Your task to perform on an android device: What's the news in Vietnam? Image 0: 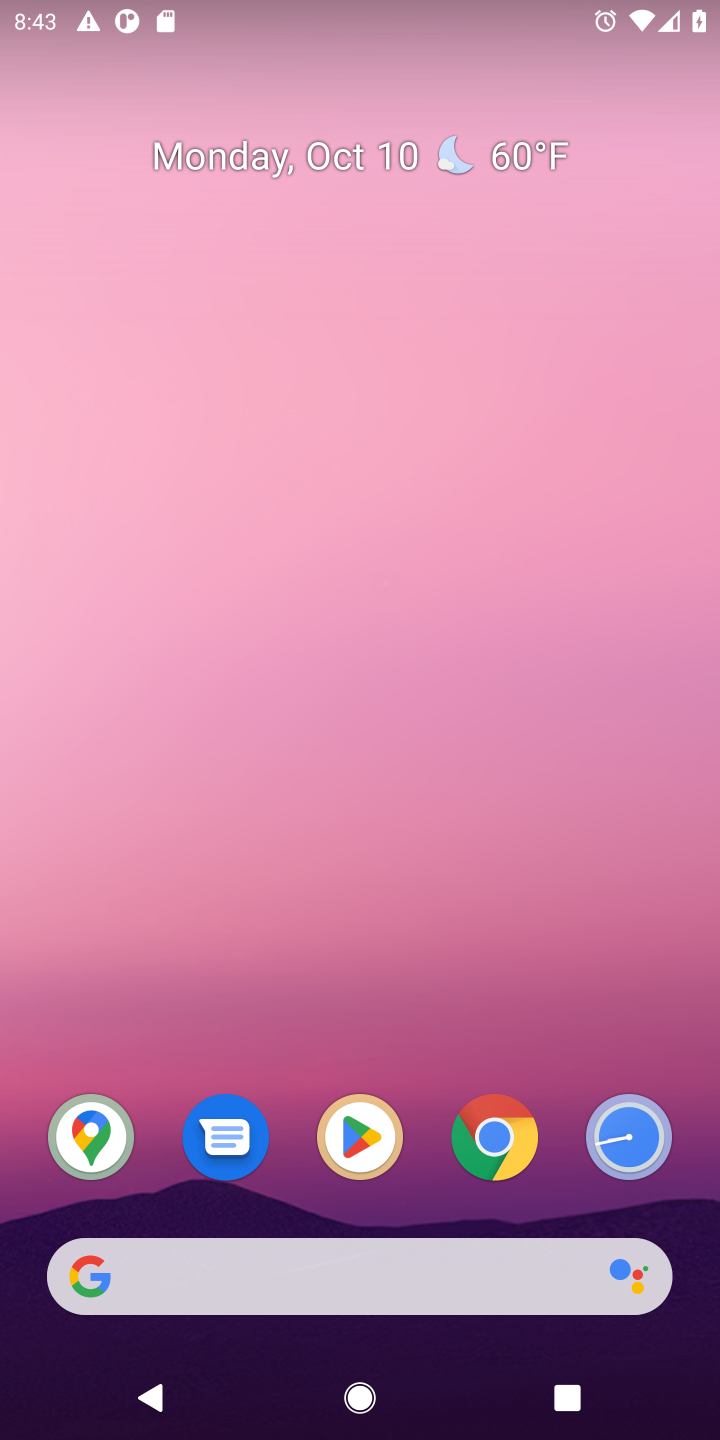
Step 0: click (500, 1136)
Your task to perform on an android device: What's the news in Vietnam? Image 1: 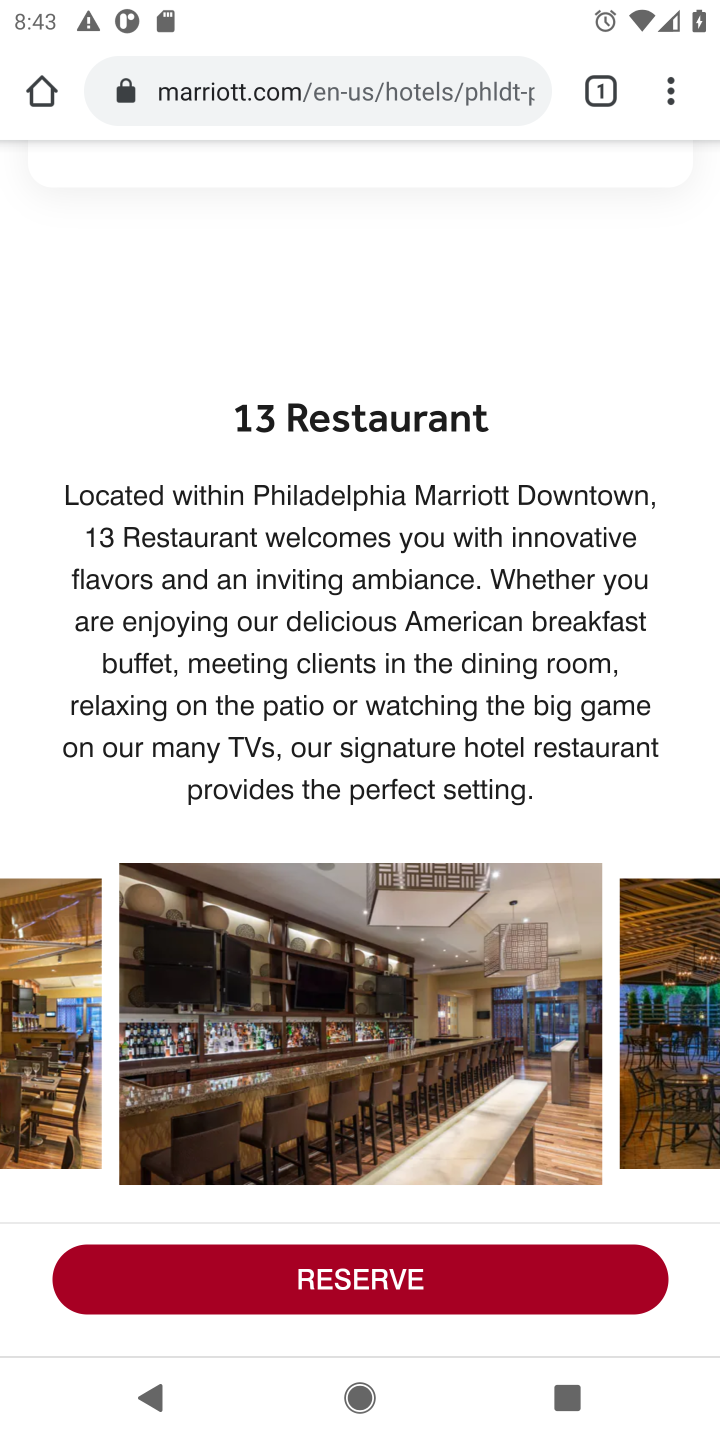
Step 1: click (306, 63)
Your task to perform on an android device: What's the news in Vietnam? Image 2: 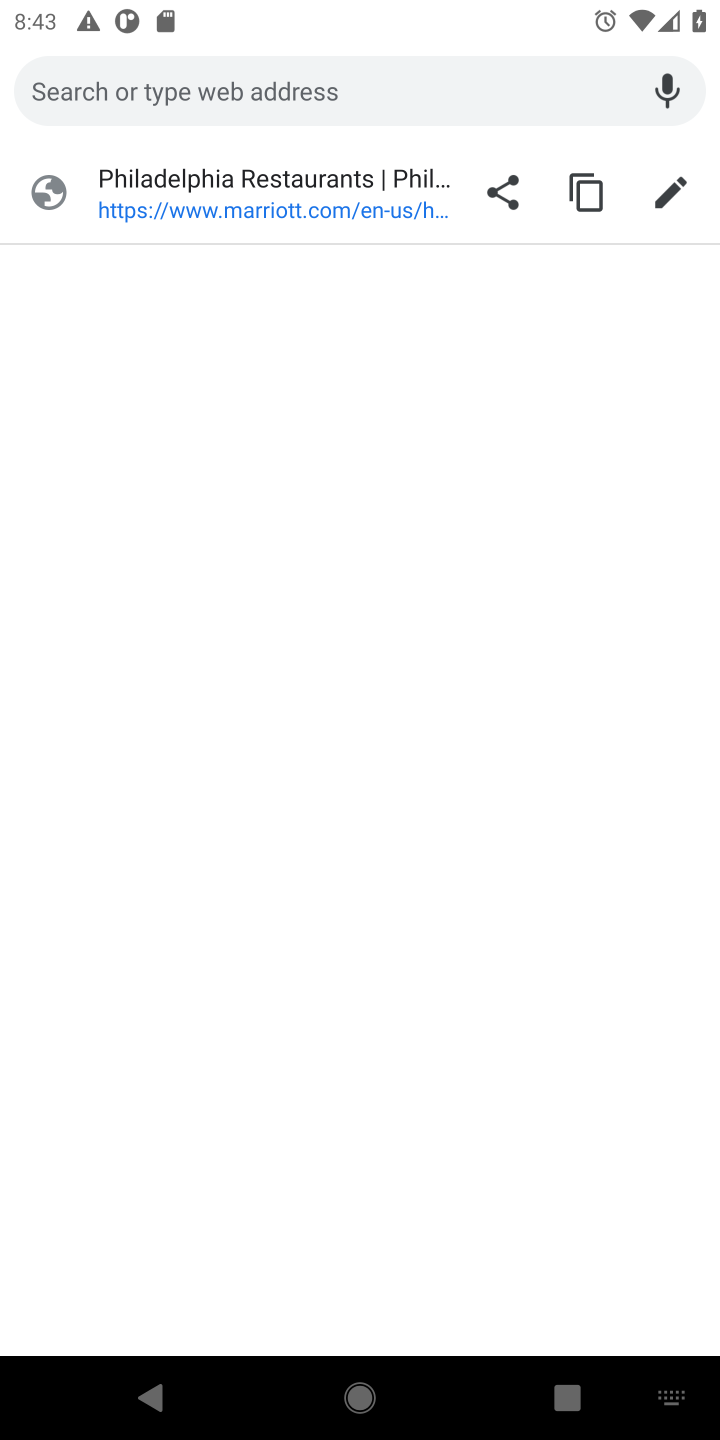
Step 2: type "news in vietnam?"
Your task to perform on an android device: What's the news in Vietnam? Image 3: 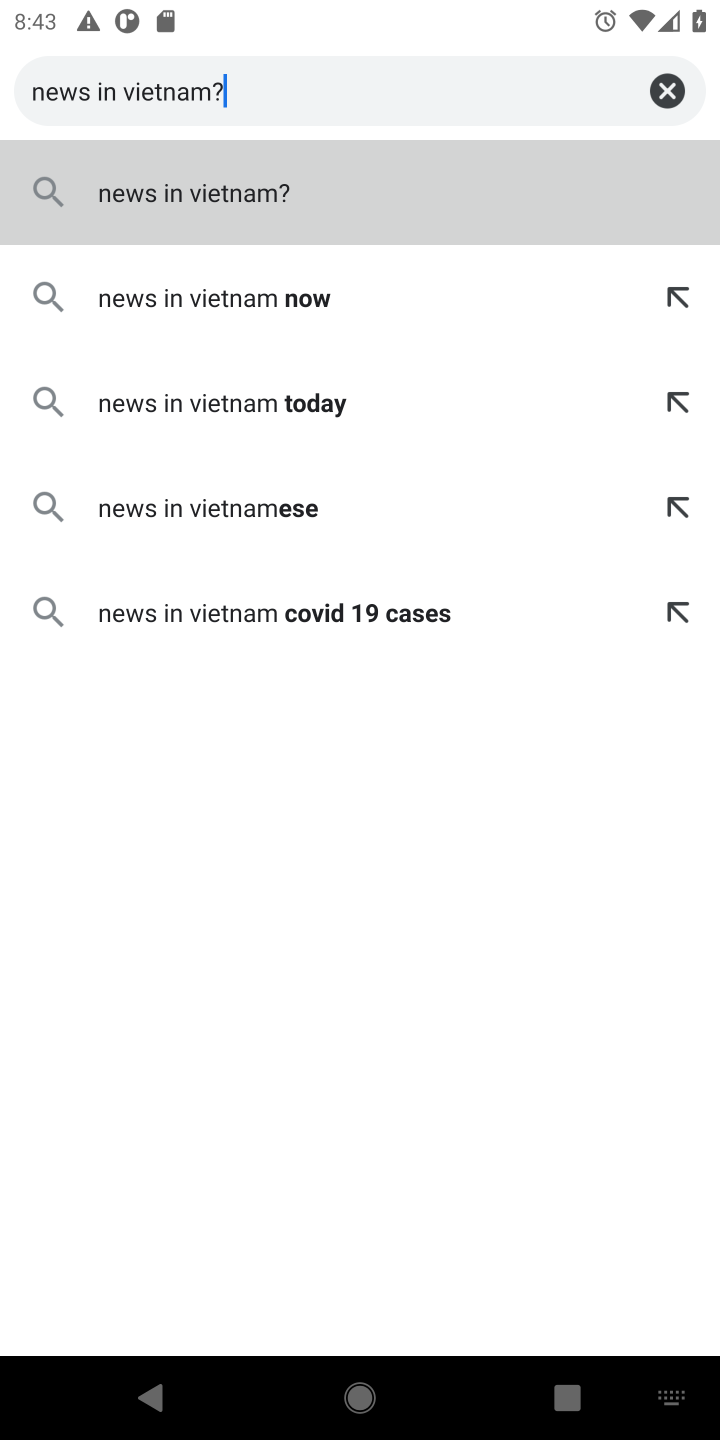
Step 3: click (152, 193)
Your task to perform on an android device: What's the news in Vietnam? Image 4: 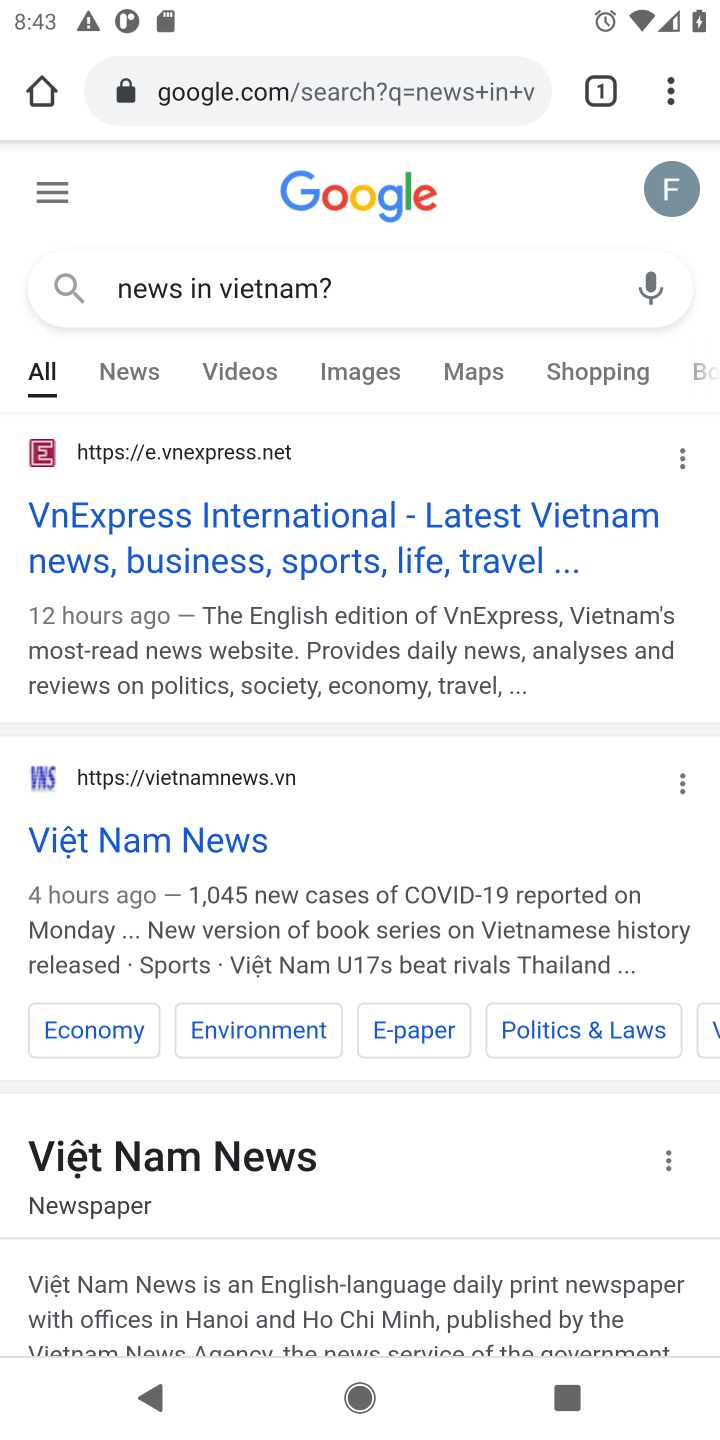
Step 4: click (182, 531)
Your task to perform on an android device: What's the news in Vietnam? Image 5: 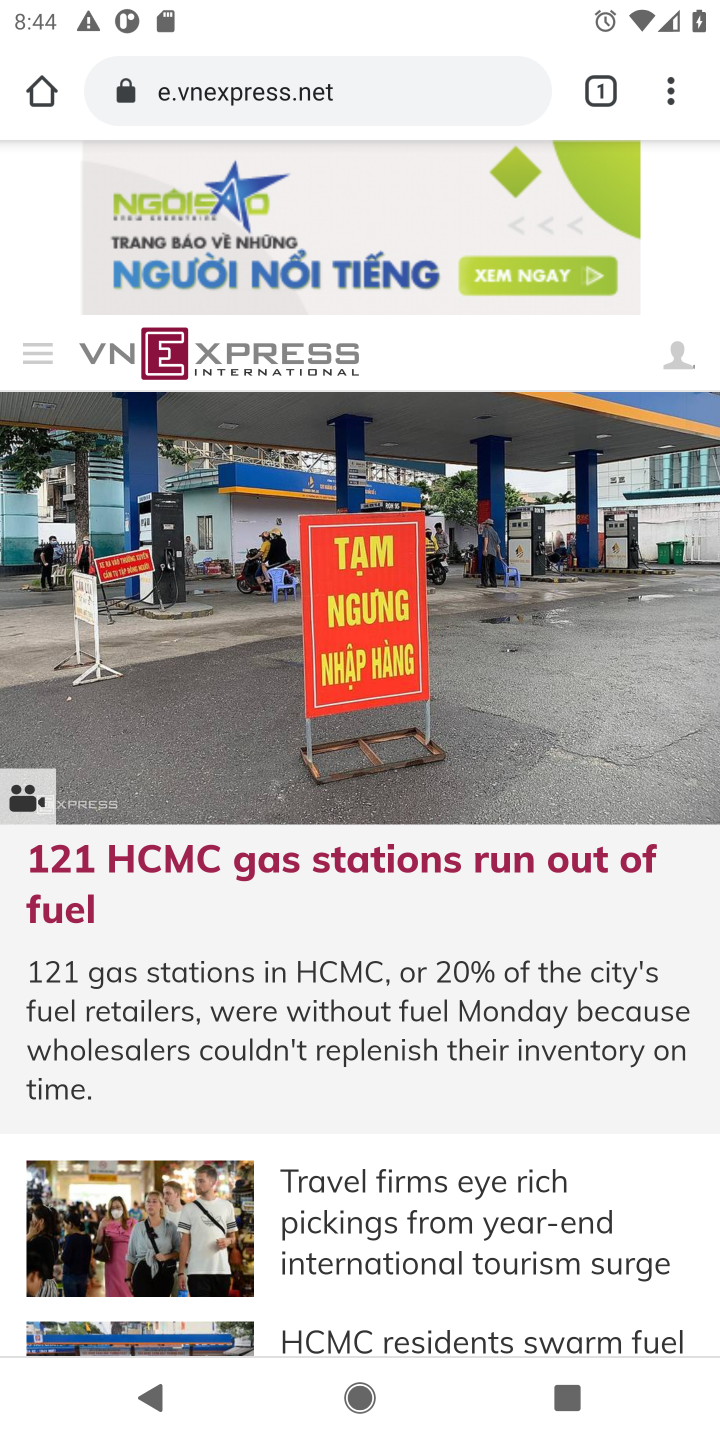
Step 5: drag from (412, 748) to (393, 201)
Your task to perform on an android device: What's the news in Vietnam? Image 6: 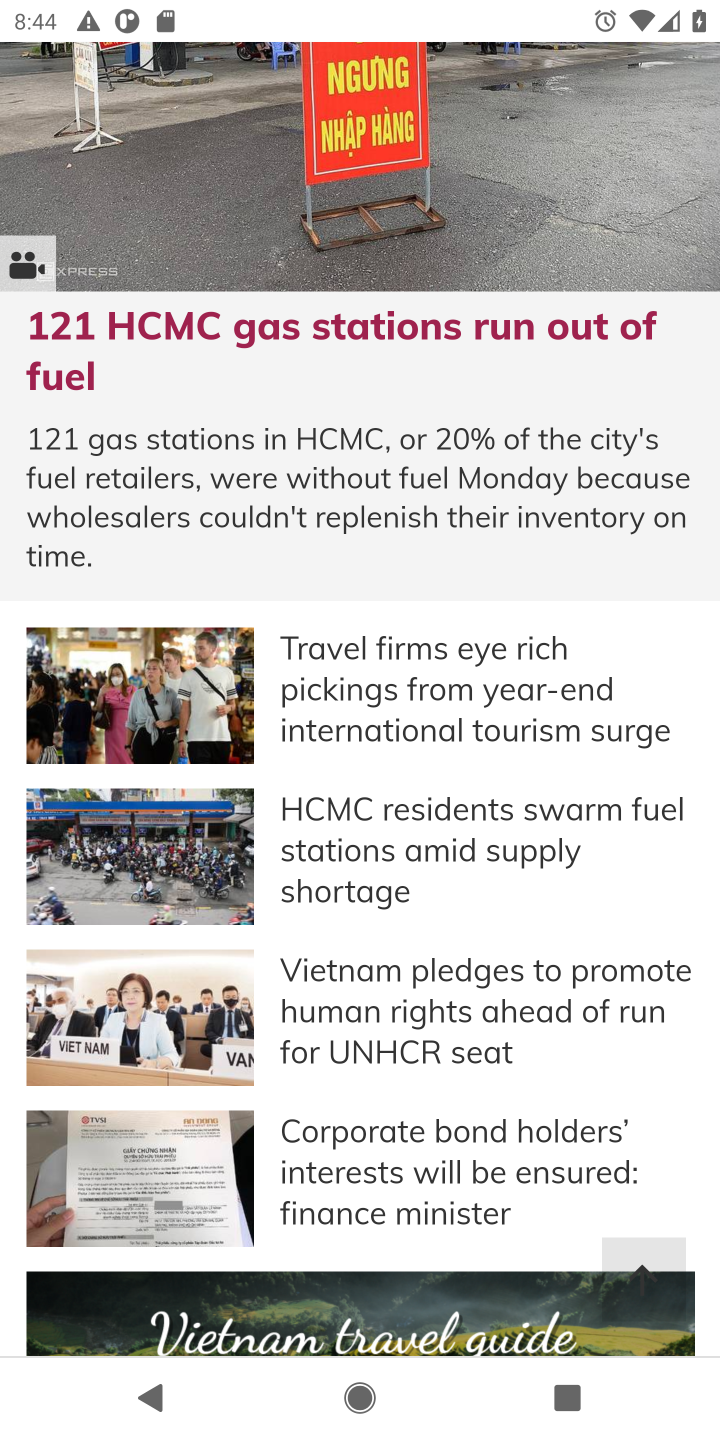
Step 6: drag from (452, 919) to (443, 545)
Your task to perform on an android device: What's the news in Vietnam? Image 7: 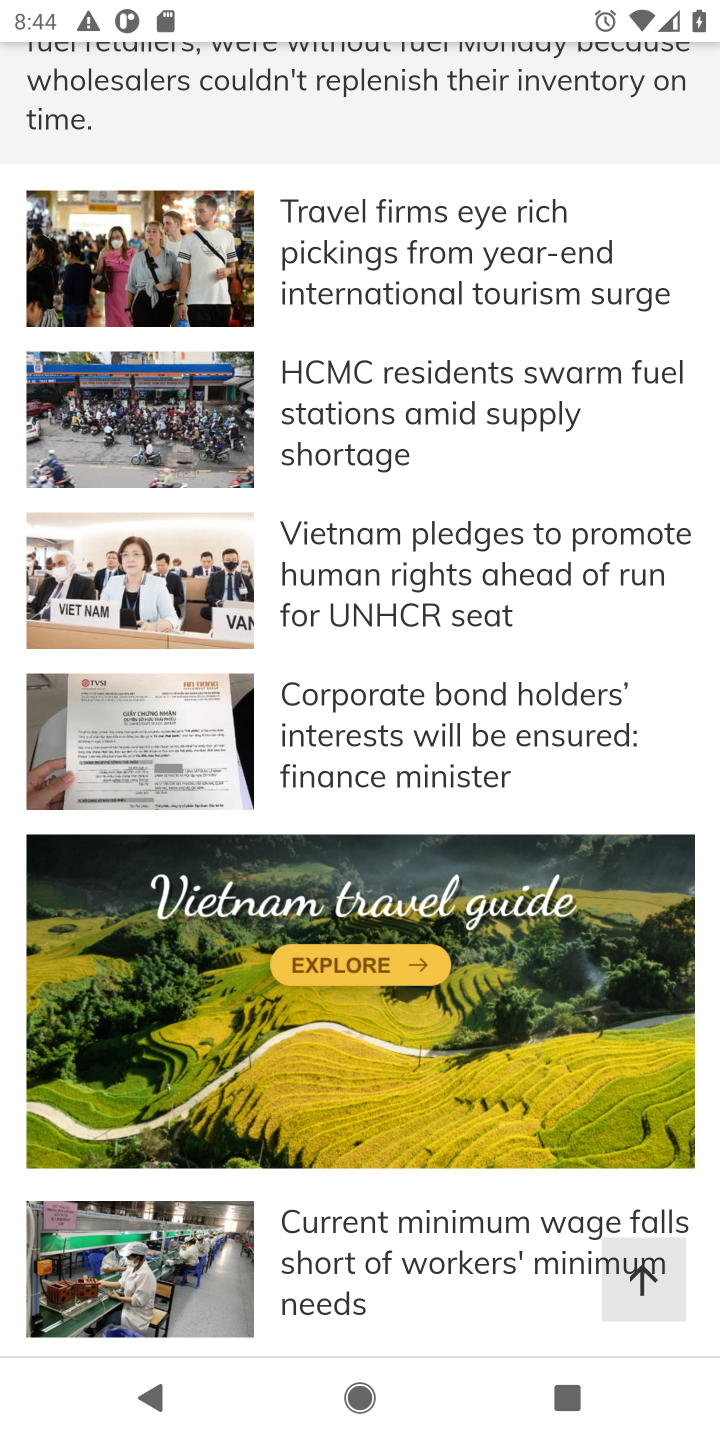
Step 7: drag from (405, 1003) to (411, 462)
Your task to perform on an android device: What's the news in Vietnam? Image 8: 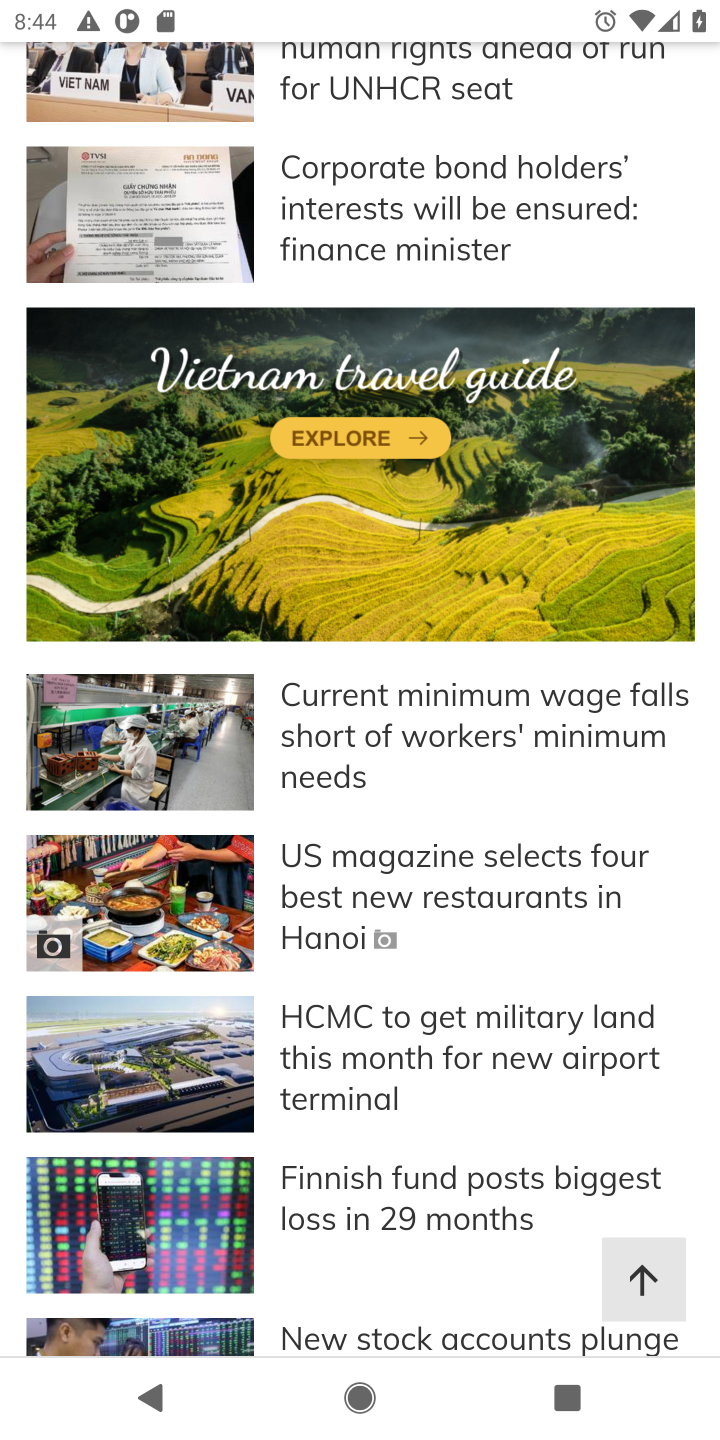
Step 8: drag from (469, 535) to (472, 258)
Your task to perform on an android device: What's the news in Vietnam? Image 9: 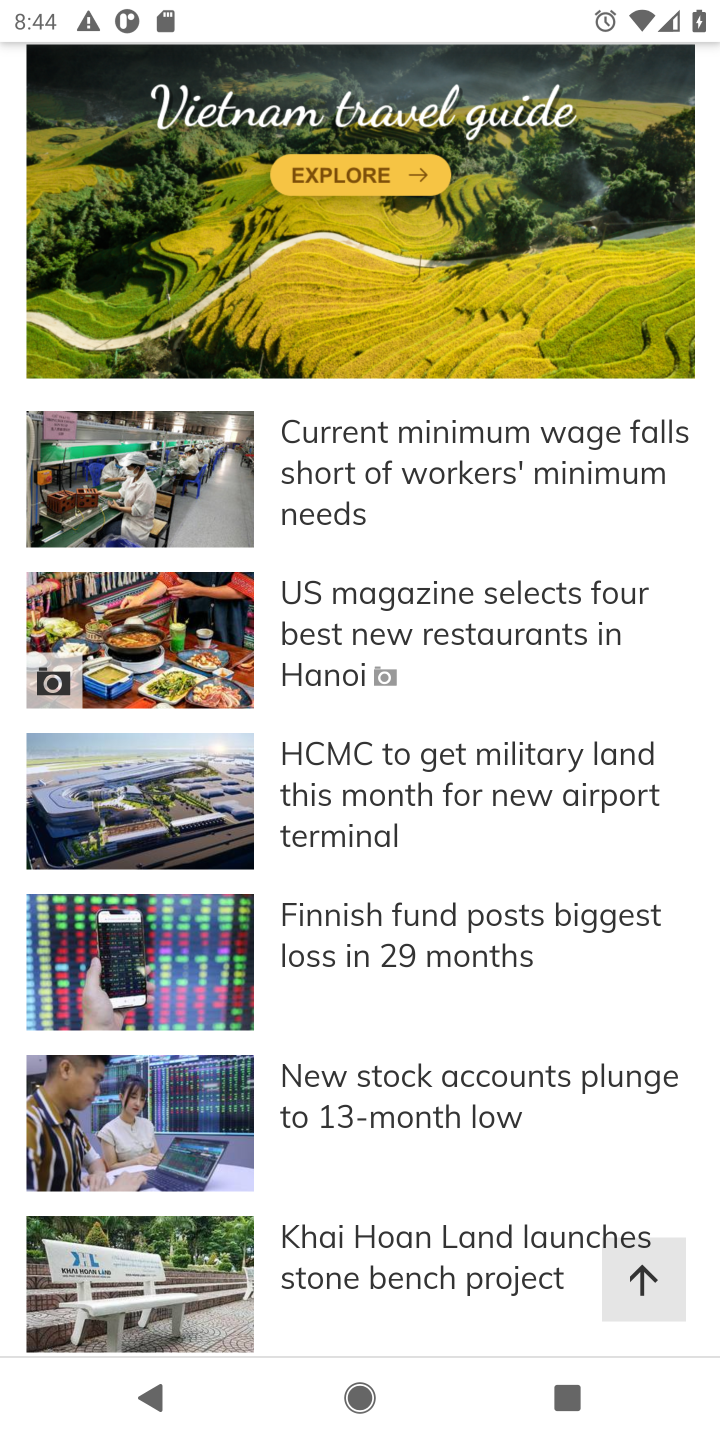
Step 9: drag from (511, 1181) to (466, 370)
Your task to perform on an android device: What's the news in Vietnam? Image 10: 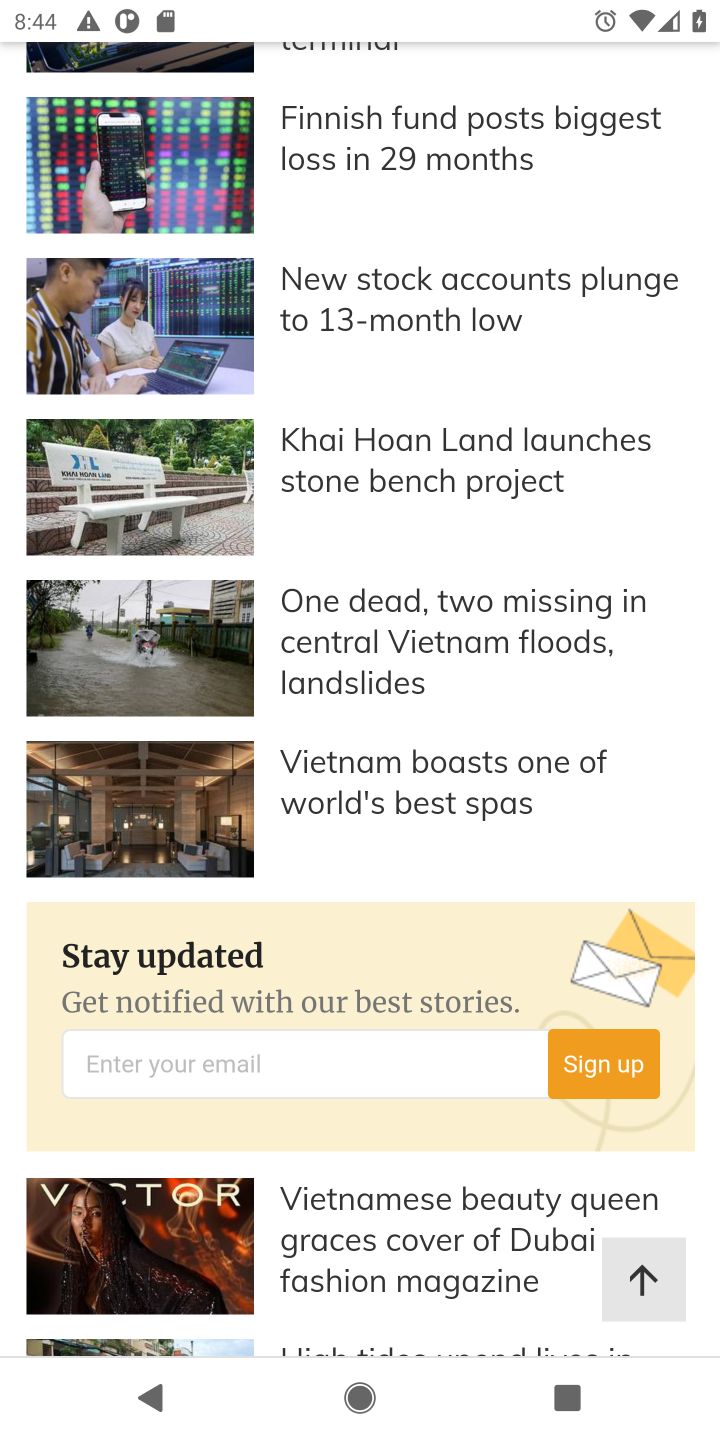
Step 10: drag from (470, 127) to (510, 864)
Your task to perform on an android device: What's the news in Vietnam? Image 11: 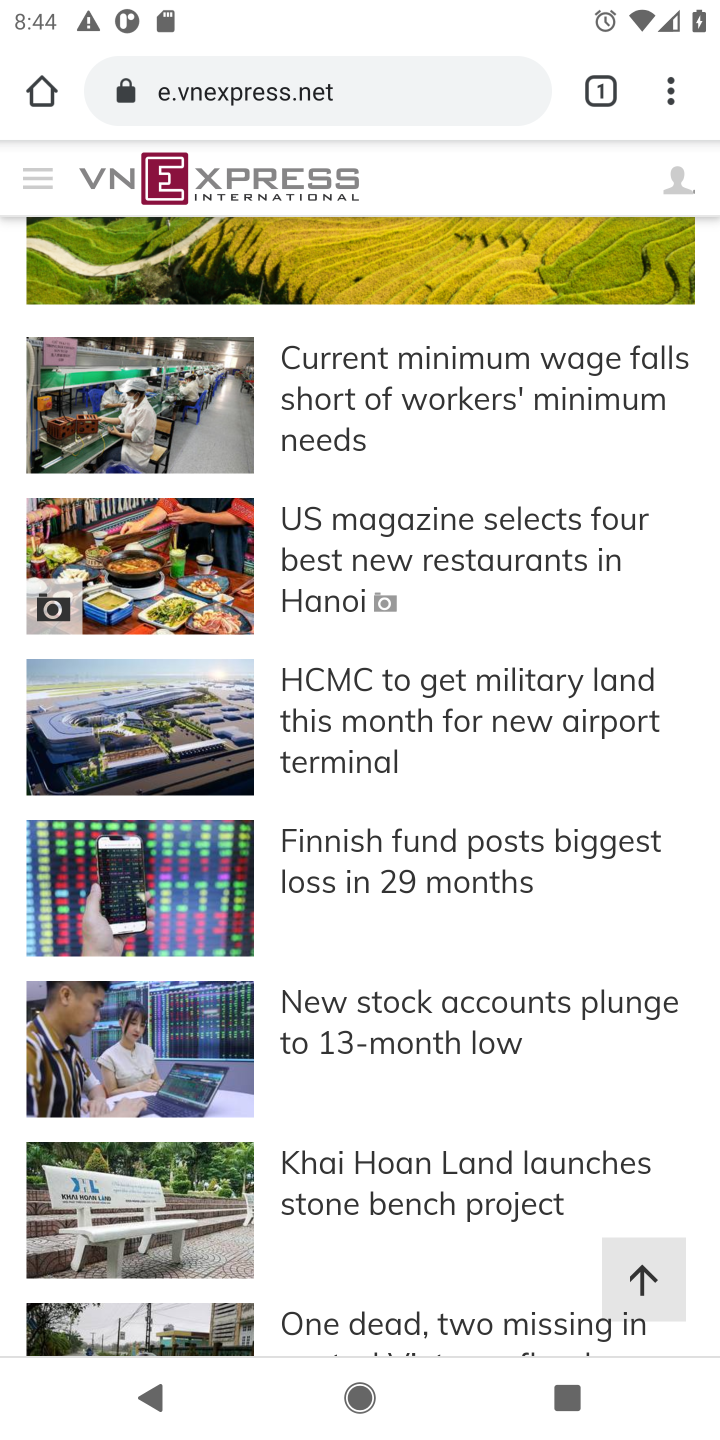
Step 11: drag from (480, 489) to (444, 1095)
Your task to perform on an android device: What's the news in Vietnam? Image 12: 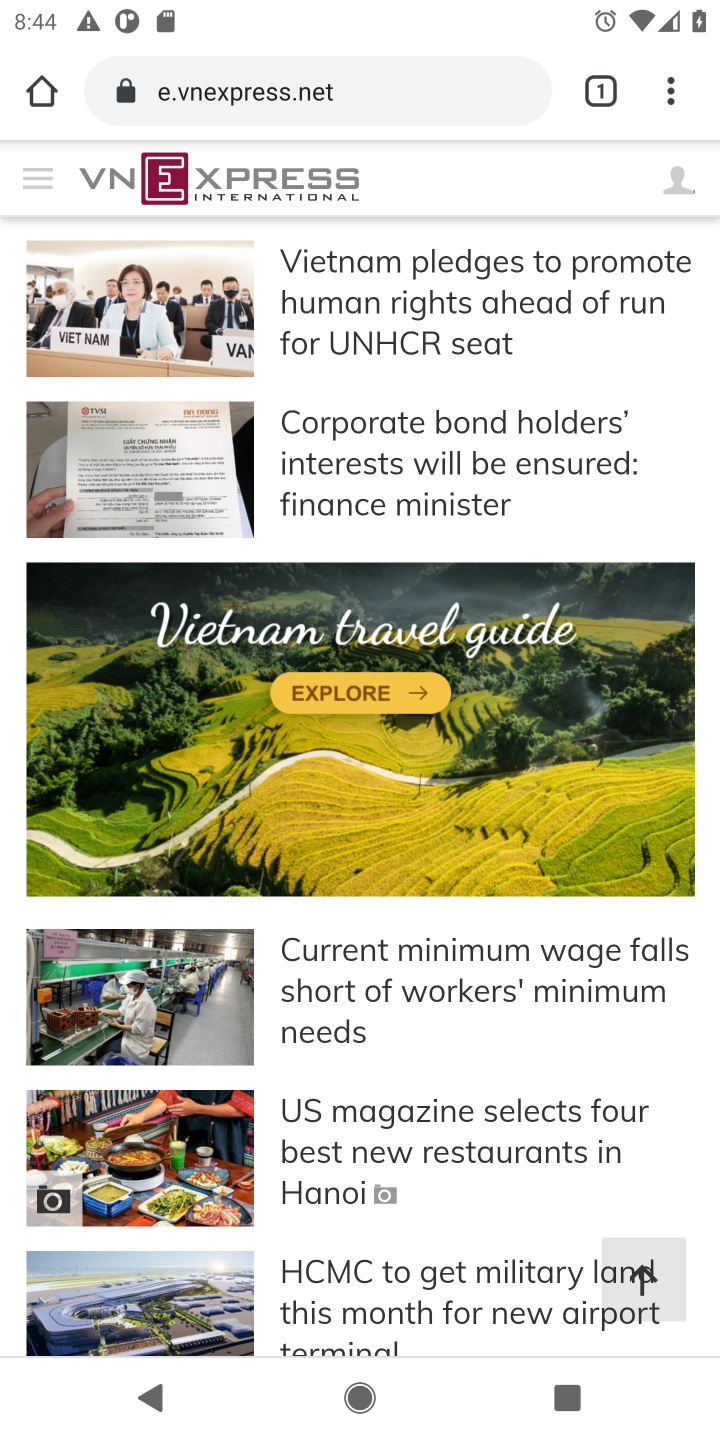
Step 12: drag from (452, 487) to (405, 1082)
Your task to perform on an android device: What's the news in Vietnam? Image 13: 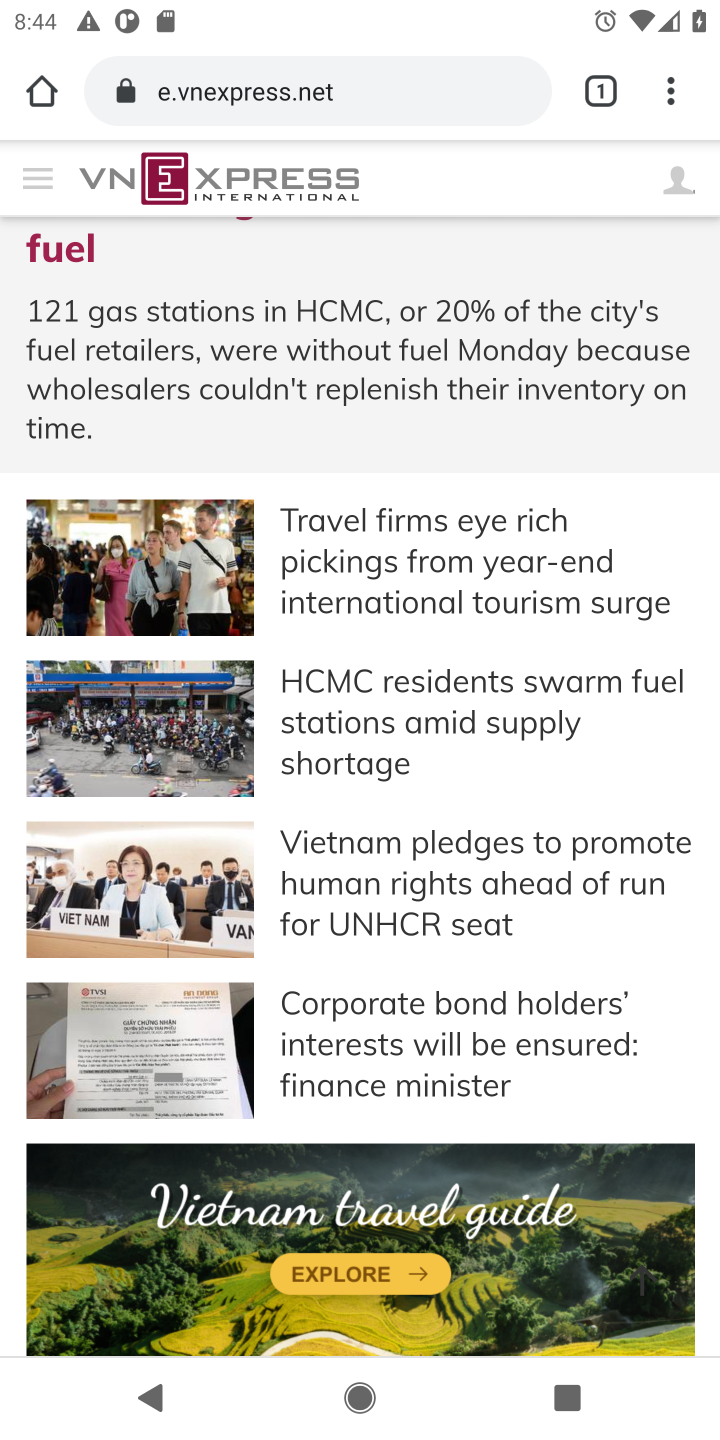
Step 13: click (415, 535)
Your task to perform on an android device: What's the news in Vietnam? Image 14: 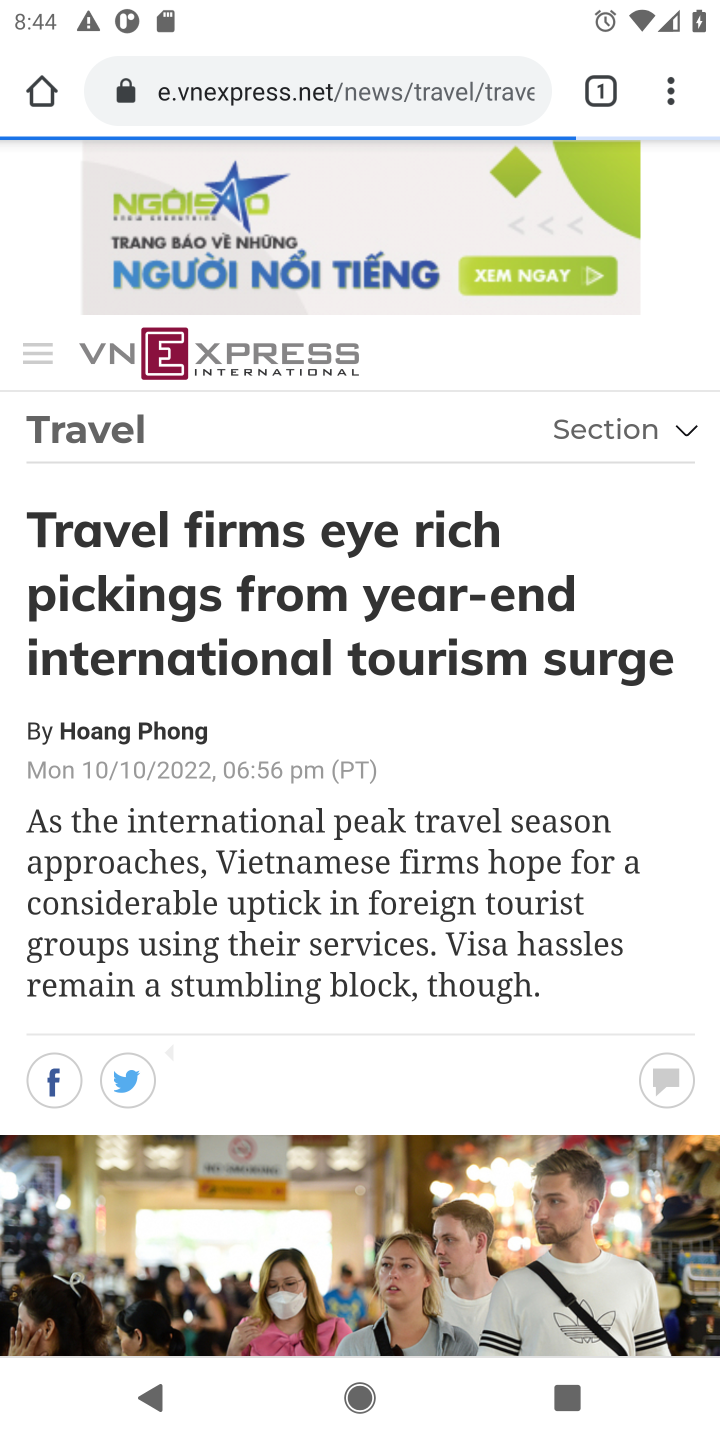
Step 14: task complete